Your task to perform on an android device: Open Google Image 0: 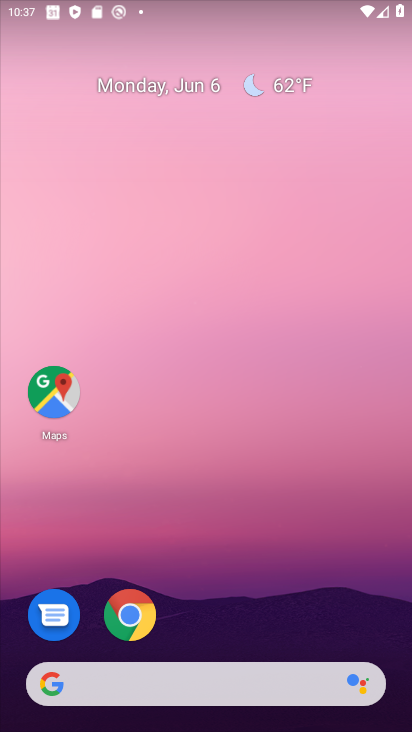
Step 0: drag from (274, 719) to (38, 239)
Your task to perform on an android device: Open Google Image 1: 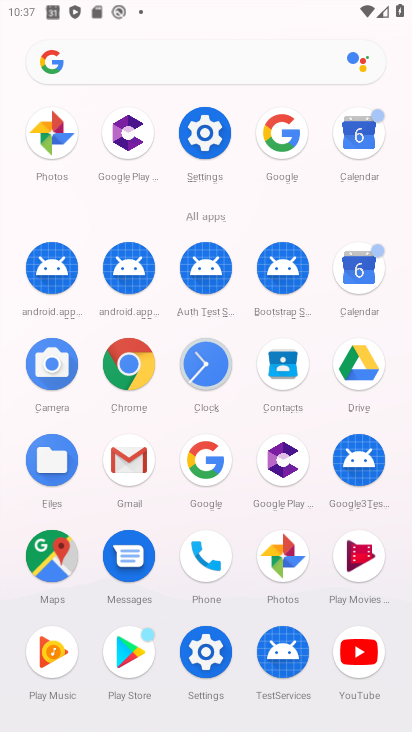
Step 1: click (195, 478)
Your task to perform on an android device: Open Google Image 2: 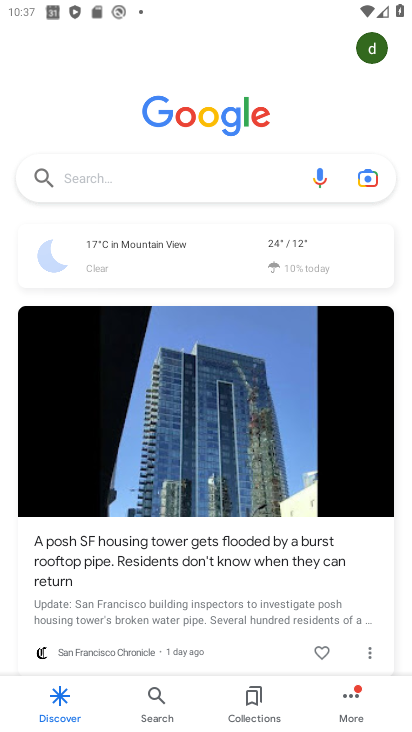
Step 2: task complete